Your task to perform on an android device: find photos in the google photos app Image 0: 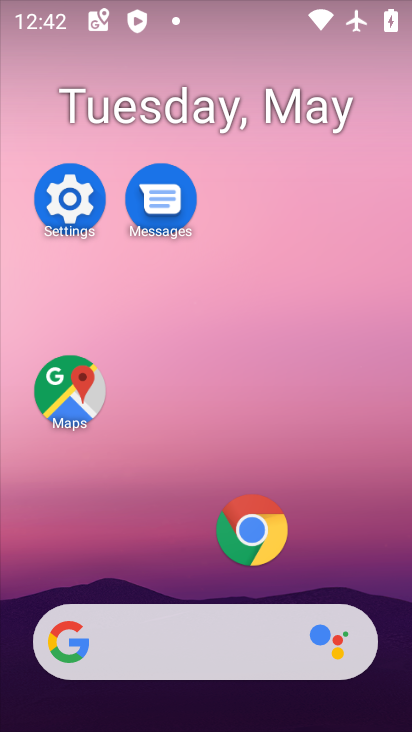
Step 0: drag from (199, 552) to (278, 119)
Your task to perform on an android device: find photos in the google photos app Image 1: 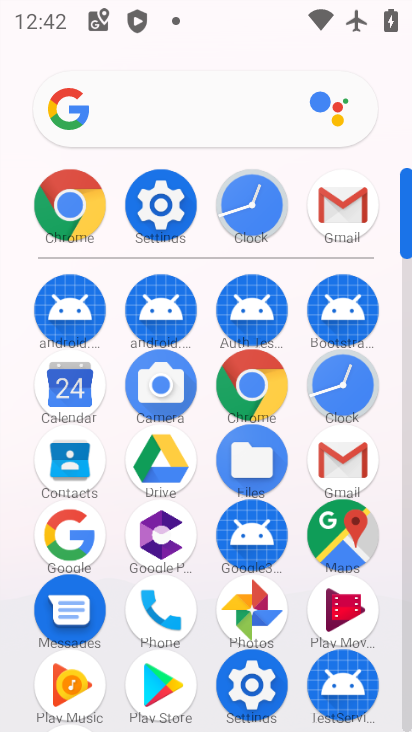
Step 1: click (268, 618)
Your task to perform on an android device: find photos in the google photos app Image 2: 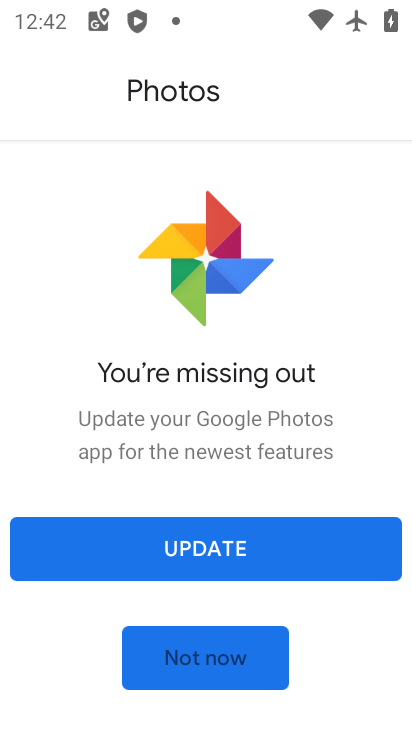
Step 2: click (257, 558)
Your task to perform on an android device: find photos in the google photos app Image 3: 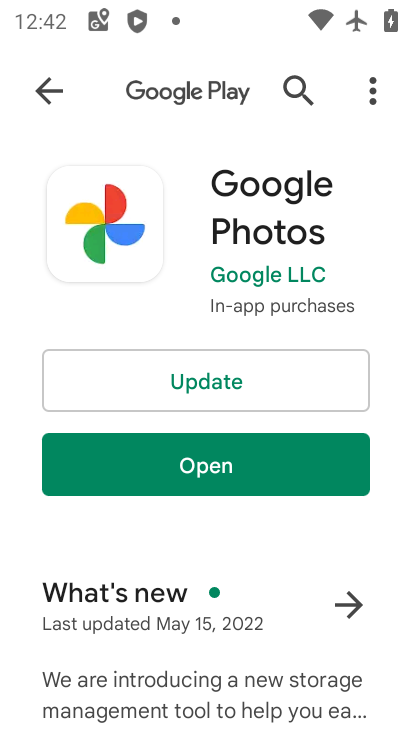
Step 3: click (232, 376)
Your task to perform on an android device: find photos in the google photos app Image 4: 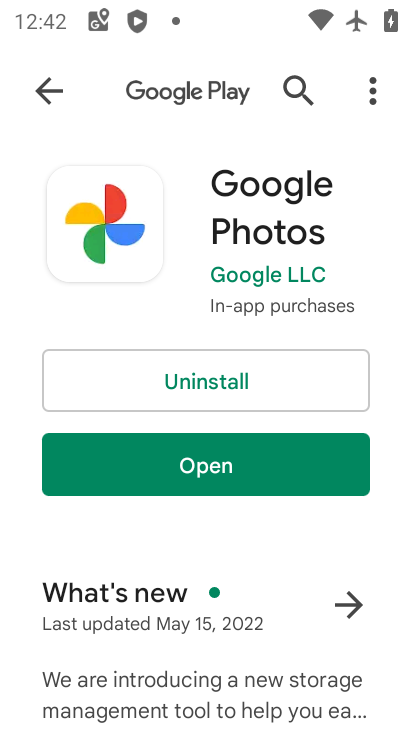
Step 4: click (280, 485)
Your task to perform on an android device: find photos in the google photos app Image 5: 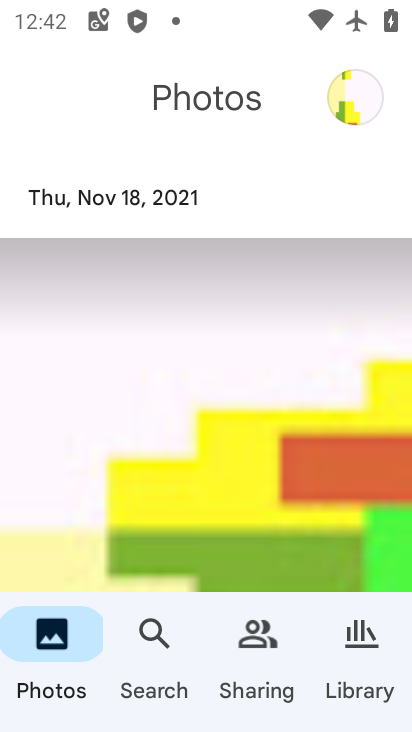
Step 5: click (68, 645)
Your task to perform on an android device: find photos in the google photos app Image 6: 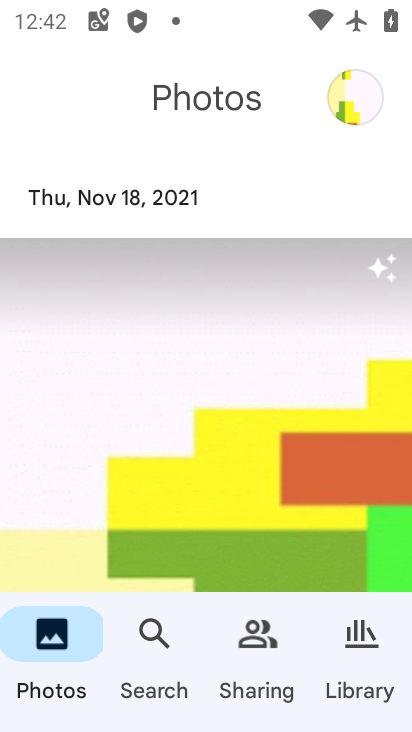
Step 6: task complete